Your task to perform on an android device: change the clock style Image 0: 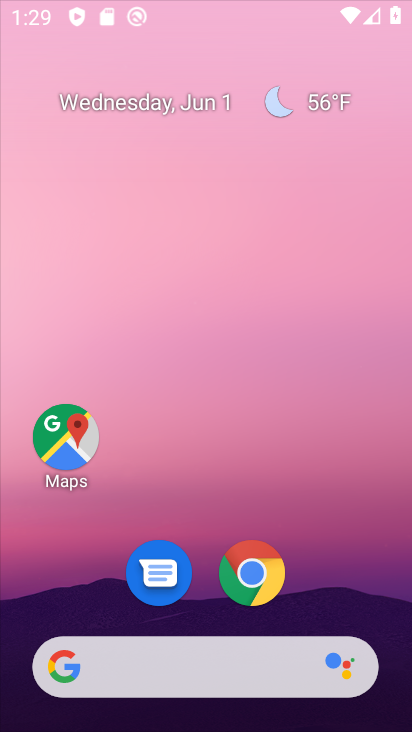
Step 0: drag from (207, 608) to (204, 181)
Your task to perform on an android device: change the clock style Image 1: 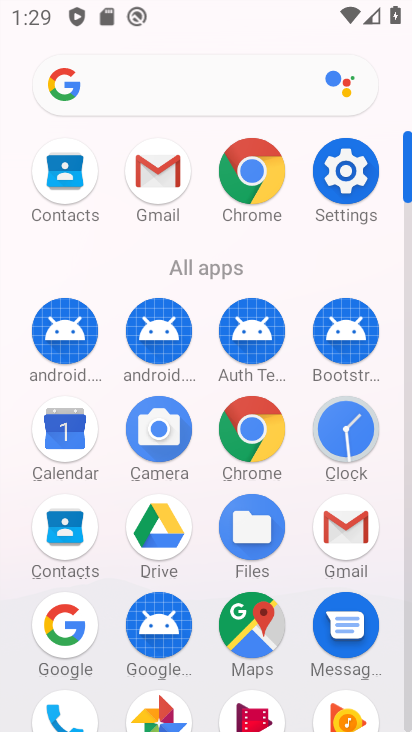
Step 1: click (352, 431)
Your task to perform on an android device: change the clock style Image 2: 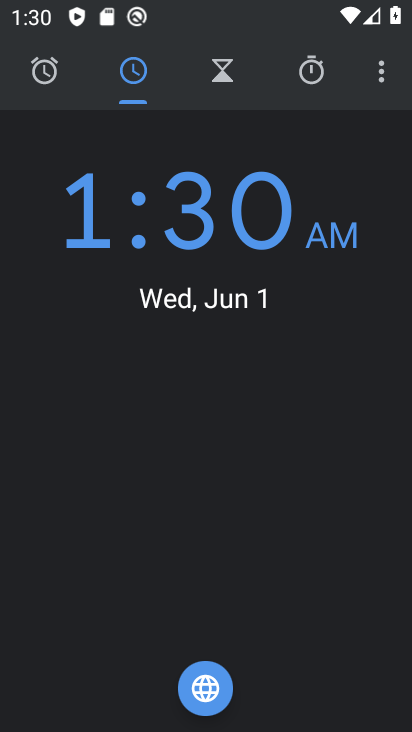
Step 2: click (381, 76)
Your task to perform on an android device: change the clock style Image 3: 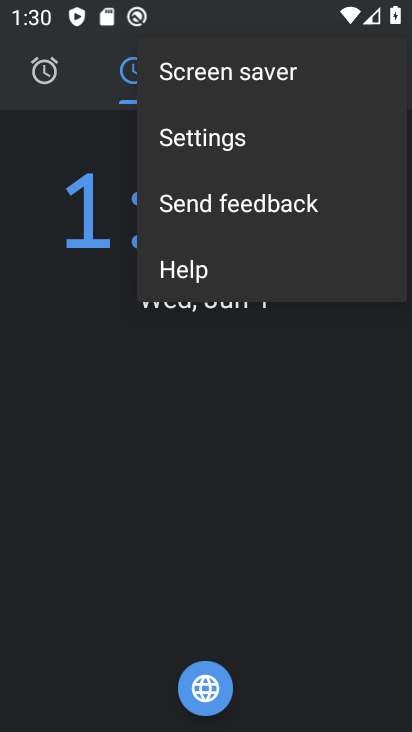
Step 3: click (230, 134)
Your task to perform on an android device: change the clock style Image 4: 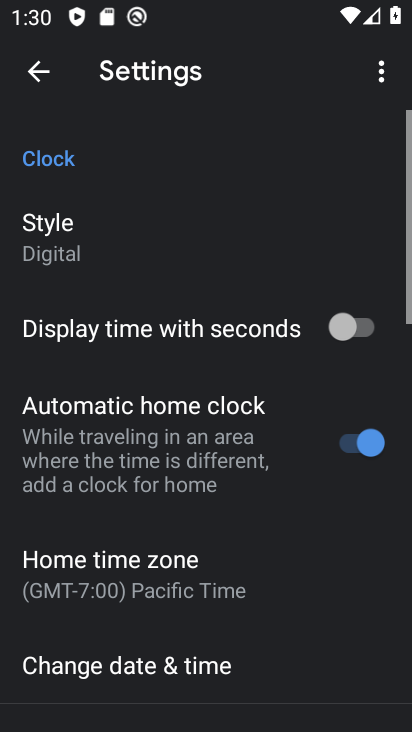
Step 4: click (119, 261)
Your task to perform on an android device: change the clock style Image 5: 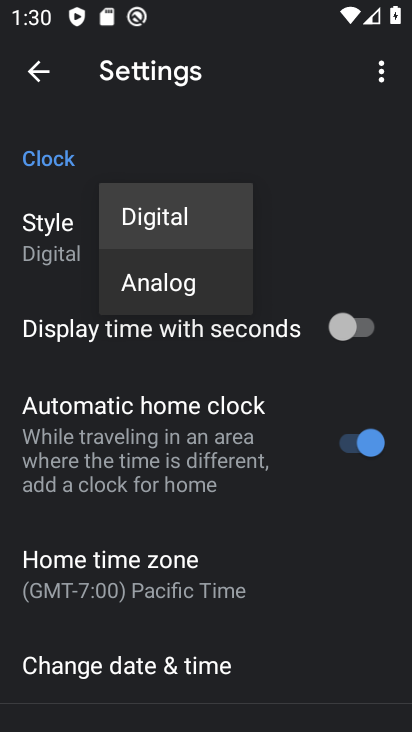
Step 5: click (173, 284)
Your task to perform on an android device: change the clock style Image 6: 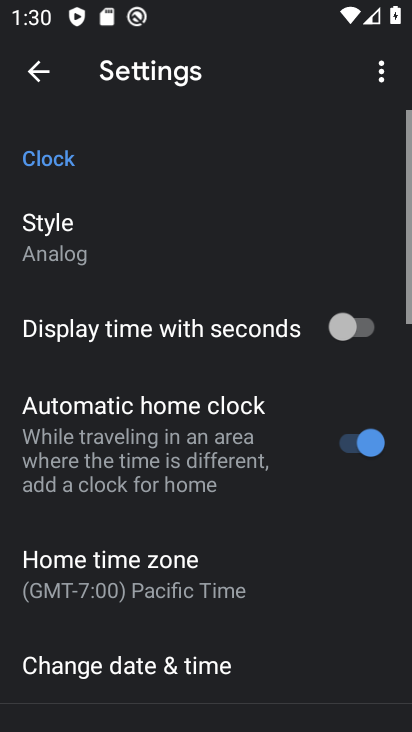
Step 6: task complete